Your task to perform on an android device: Open eBay Image 0: 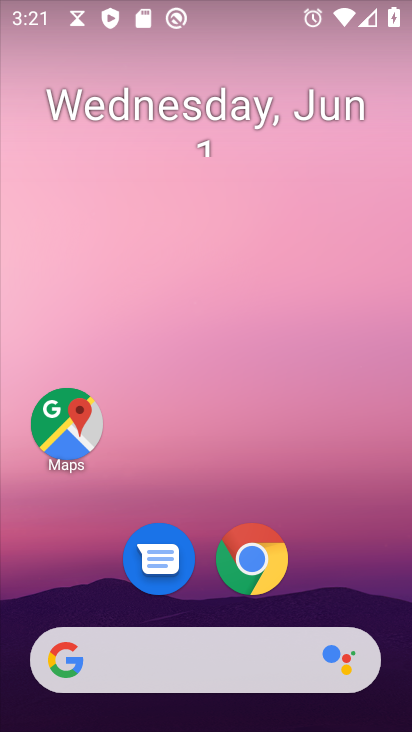
Step 0: click (261, 565)
Your task to perform on an android device: Open eBay Image 1: 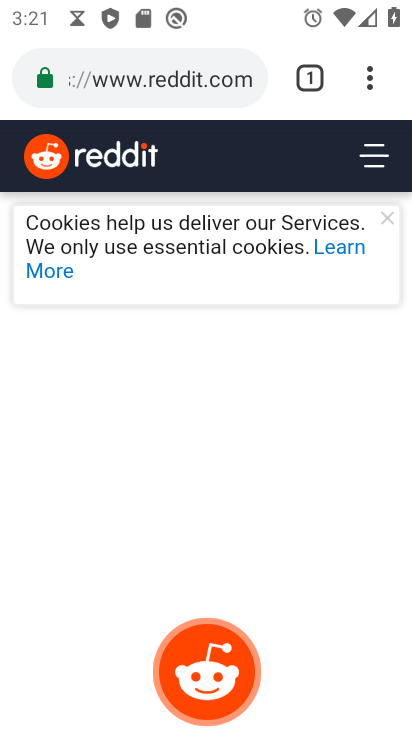
Step 1: click (148, 82)
Your task to perform on an android device: Open eBay Image 2: 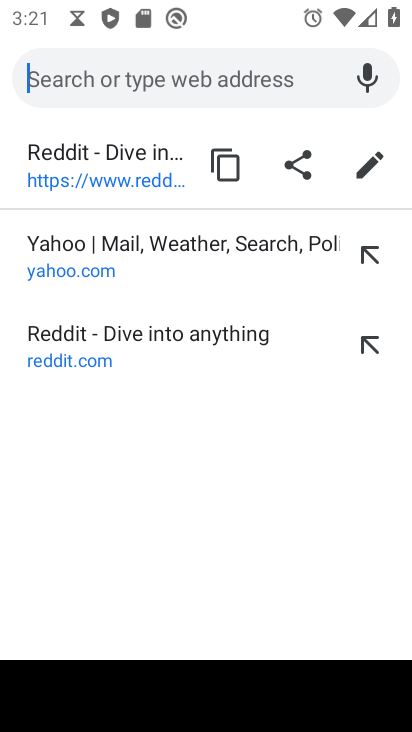
Step 2: type "ebay"
Your task to perform on an android device: Open eBay Image 3: 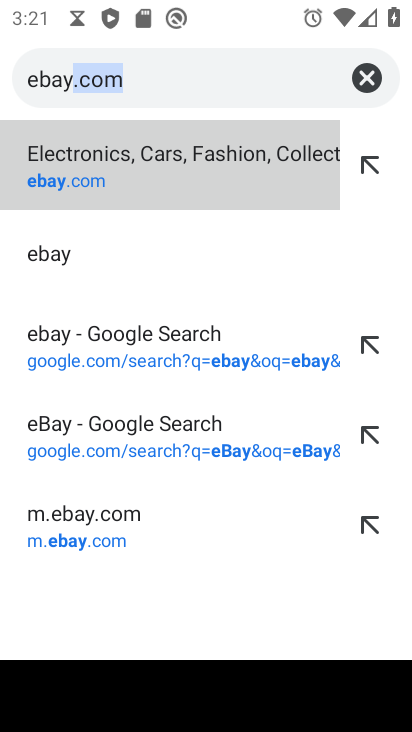
Step 3: click (112, 160)
Your task to perform on an android device: Open eBay Image 4: 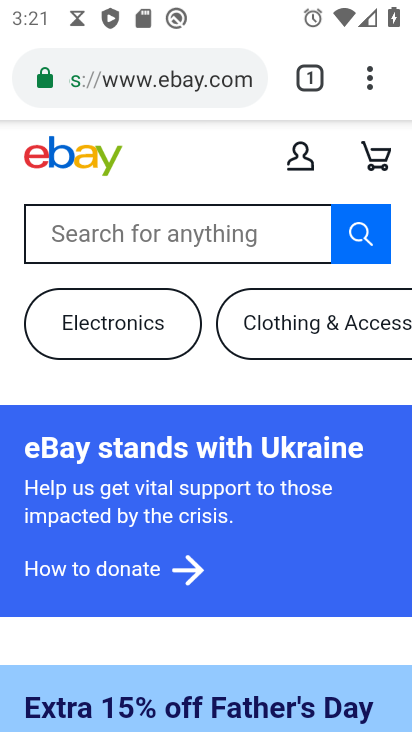
Step 4: task complete